Your task to perform on an android device: turn off airplane mode Image 0: 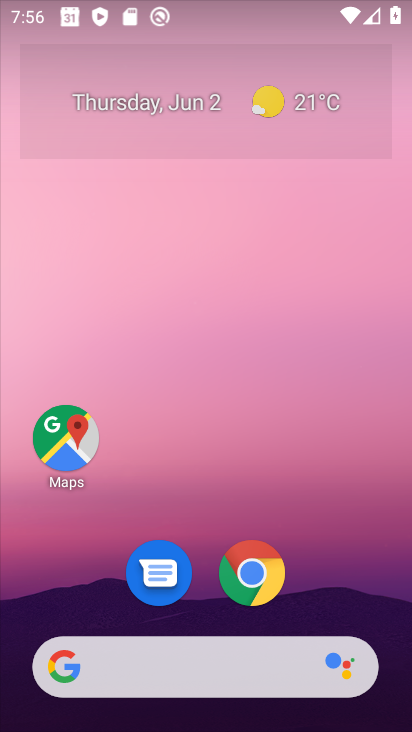
Step 0: drag from (324, 602) to (264, 82)
Your task to perform on an android device: turn off airplane mode Image 1: 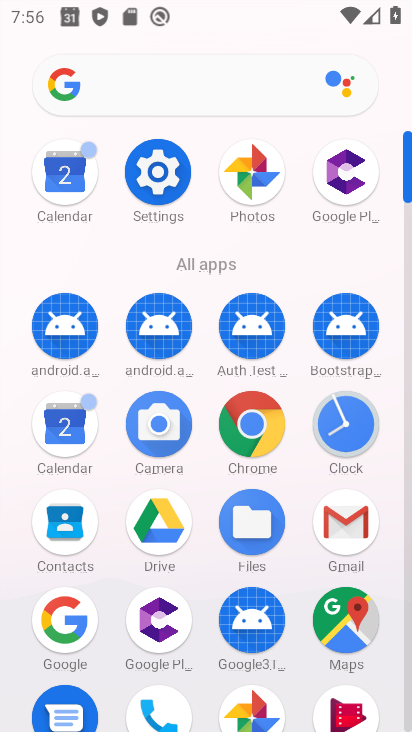
Step 1: click (160, 149)
Your task to perform on an android device: turn off airplane mode Image 2: 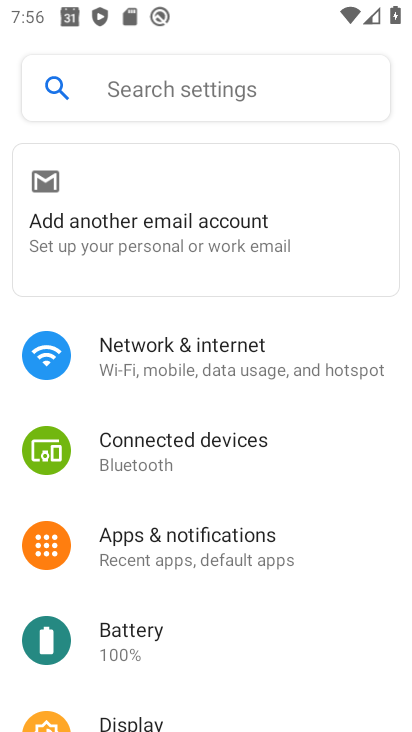
Step 2: click (195, 346)
Your task to perform on an android device: turn off airplane mode Image 3: 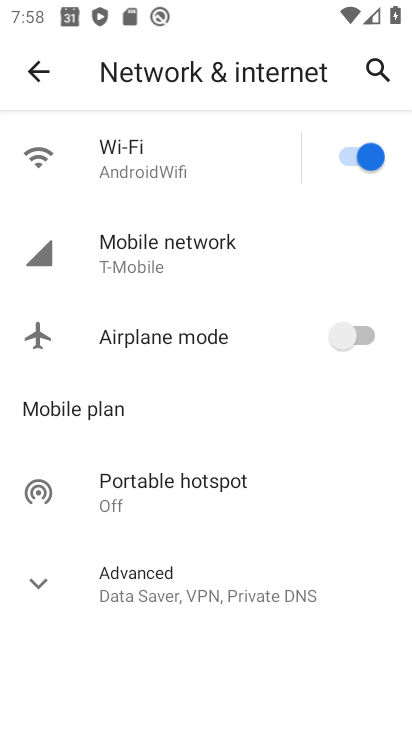
Step 3: task complete